Your task to perform on an android device: Clear the shopping cart on newegg. Search for "apple airpods pro" on newegg, select the first entry, add it to the cart, then select checkout. Image 0: 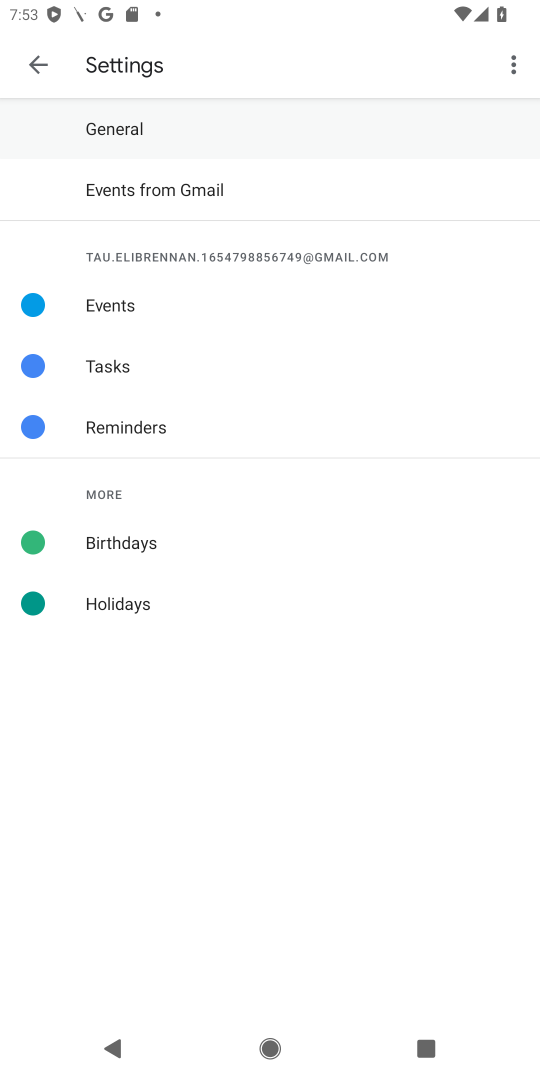
Step 0: press home button
Your task to perform on an android device: Clear the shopping cart on newegg. Search for "apple airpods pro" on newegg, select the first entry, add it to the cart, then select checkout. Image 1: 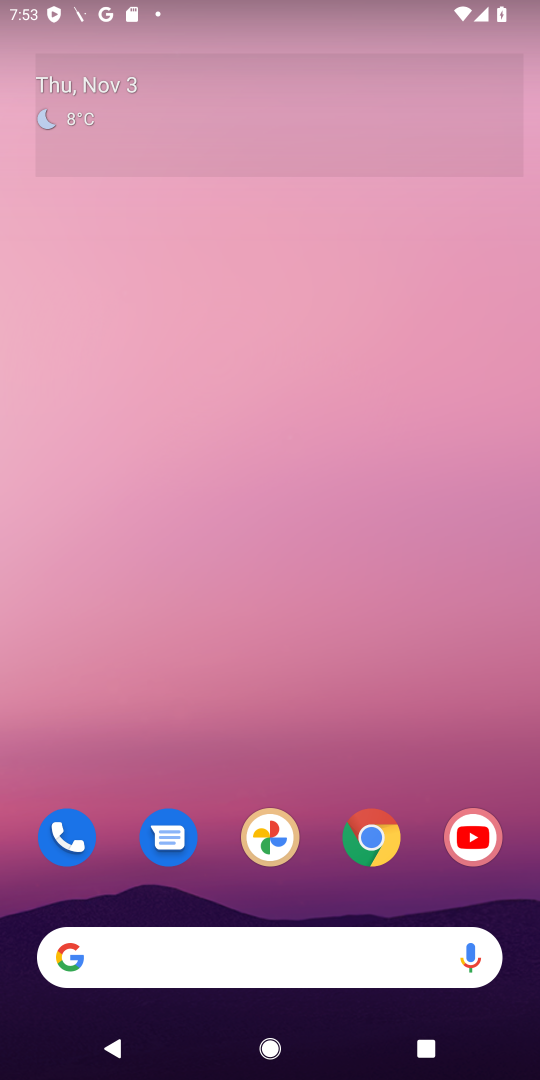
Step 1: click (377, 837)
Your task to perform on an android device: Clear the shopping cart on newegg. Search for "apple airpods pro" on newegg, select the first entry, add it to the cart, then select checkout. Image 2: 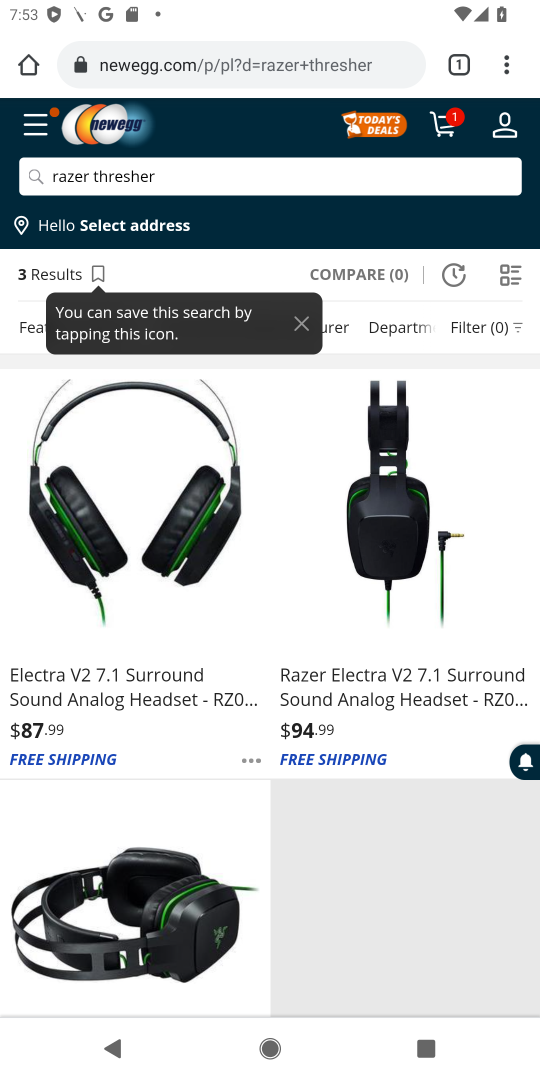
Step 2: click (191, 175)
Your task to perform on an android device: Clear the shopping cart on newegg. Search for "apple airpods pro" on newegg, select the first entry, add it to the cart, then select checkout. Image 3: 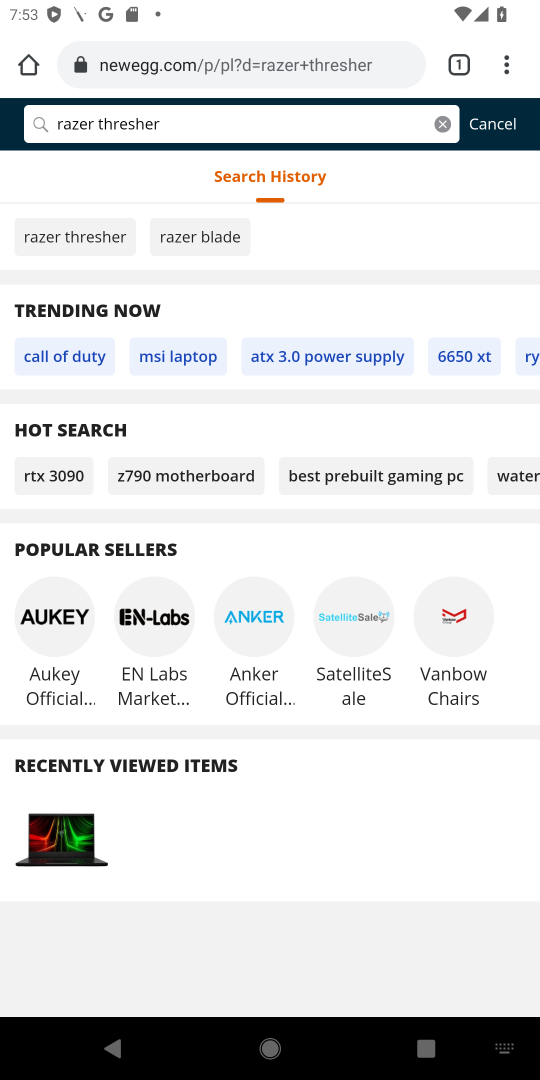
Step 3: click (441, 121)
Your task to perform on an android device: Clear the shopping cart on newegg. Search for "apple airpods pro" on newegg, select the first entry, add it to the cart, then select checkout. Image 4: 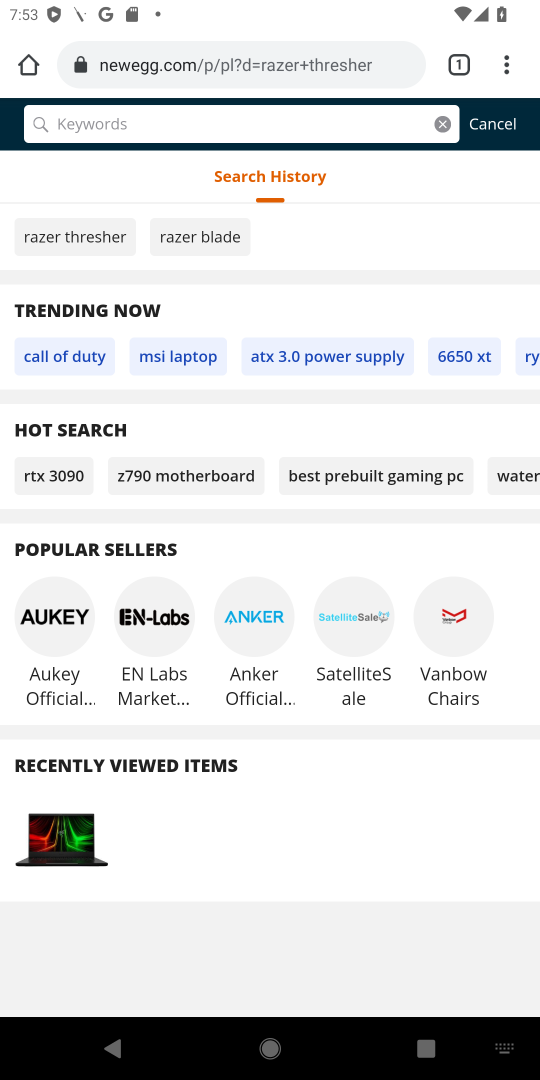
Step 4: type "apple airpods pro"
Your task to perform on an android device: Clear the shopping cart on newegg. Search for "apple airpods pro" on newegg, select the first entry, add it to the cart, then select checkout. Image 5: 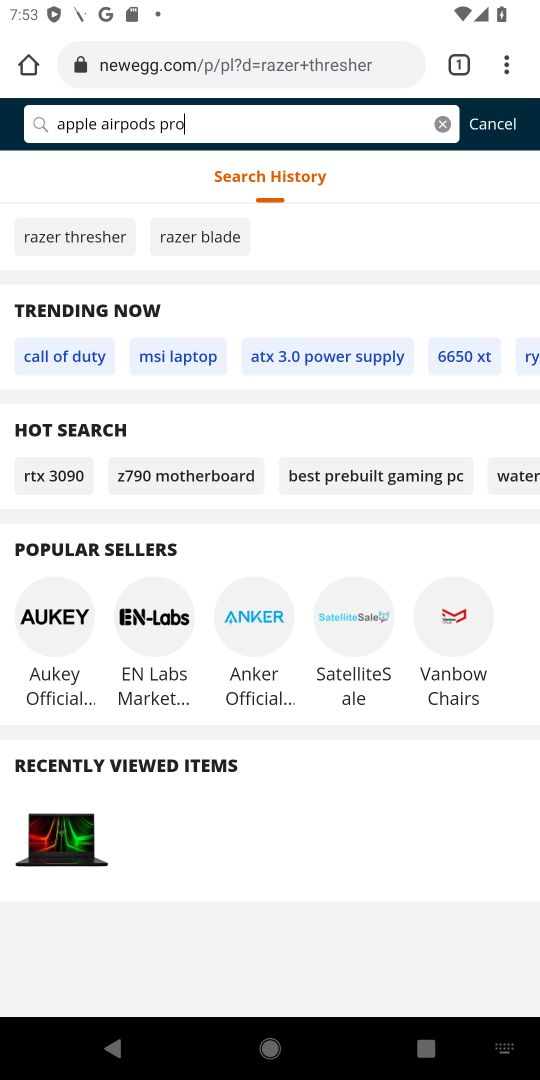
Step 5: press enter
Your task to perform on an android device: Clear the shopping cart on newegg. Search for "apple airpods pro" on newegg, select the first entry, add it to the cart, then select checkout. Image 6: 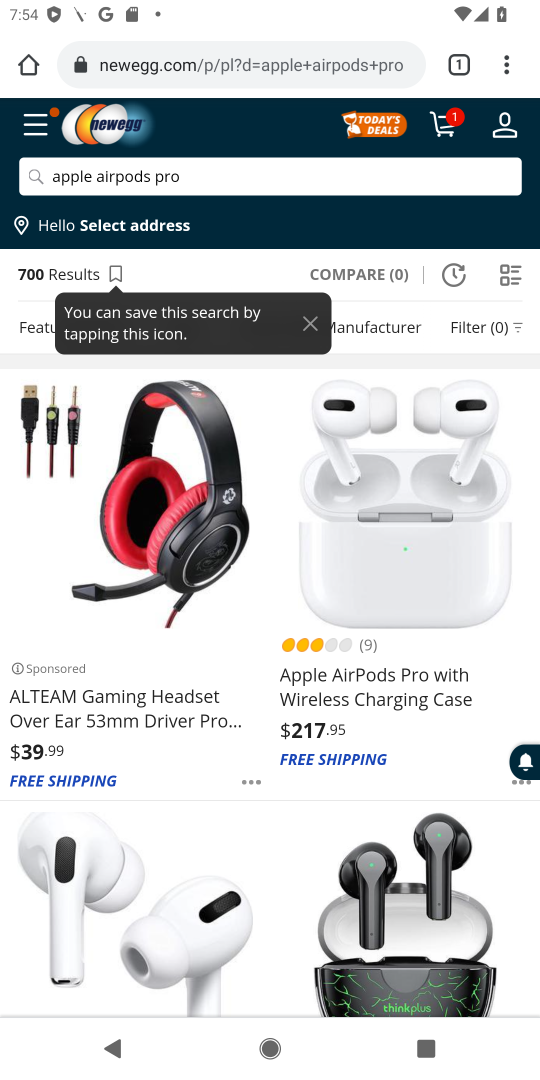
Step 6: click (64, 642)
Your task to perform on an android device: Clear the shopping cart on newegg. Search for "apple airpods pro" on newegg, select the first entry, add it to the cart, then select checkout. Image 7: 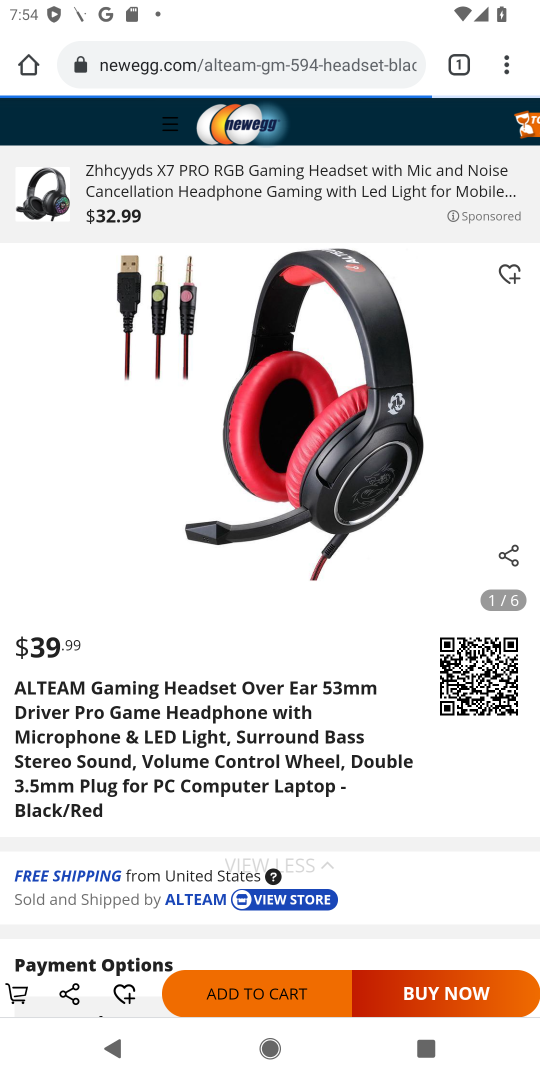
Step 7: click (75, 706)
Your task to perform on an android device: Clear the shopping cart on newegg. Search for "apple airpods pro" on newegg, select the first entry, add it to the cart, then select checkout. Image 8: 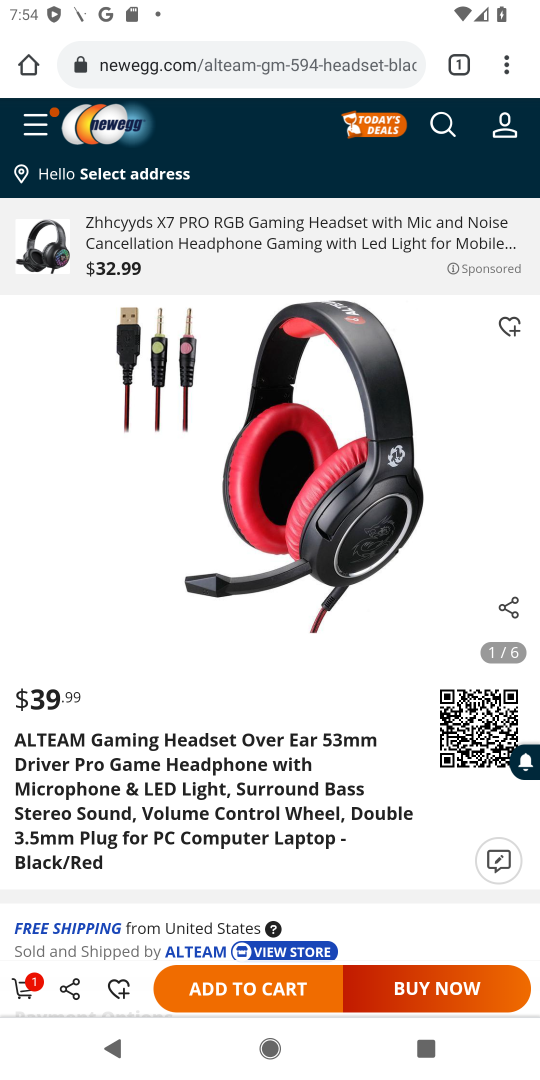
Step 8: task complete